Your task to perform on an android device: Open Google Maps Image 0: 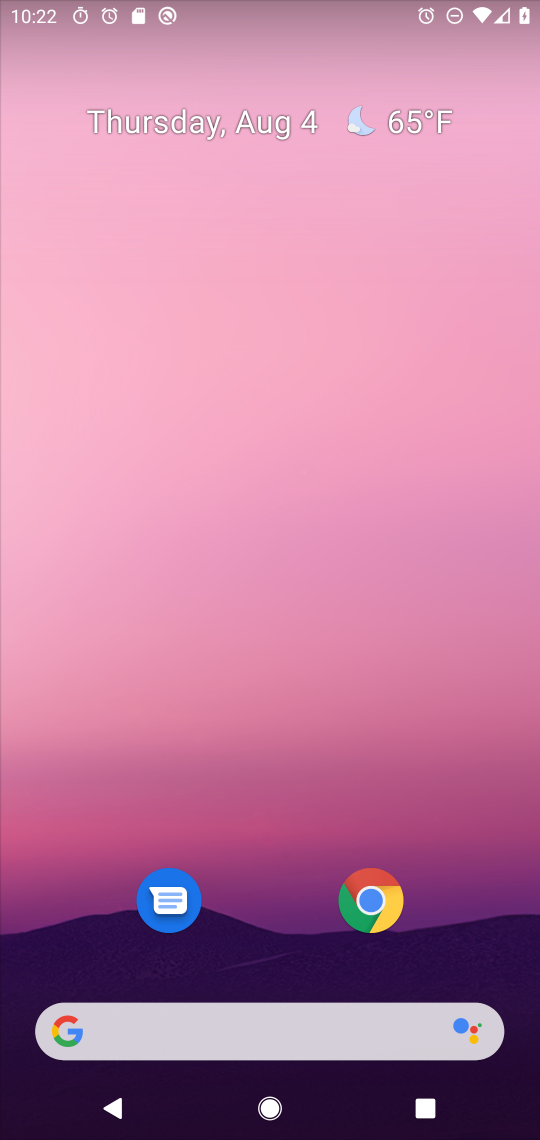
Step 0: drag from (243, 1034) to (362, 187)
Your task to perform on an android device: Open Google Maps Image 1: 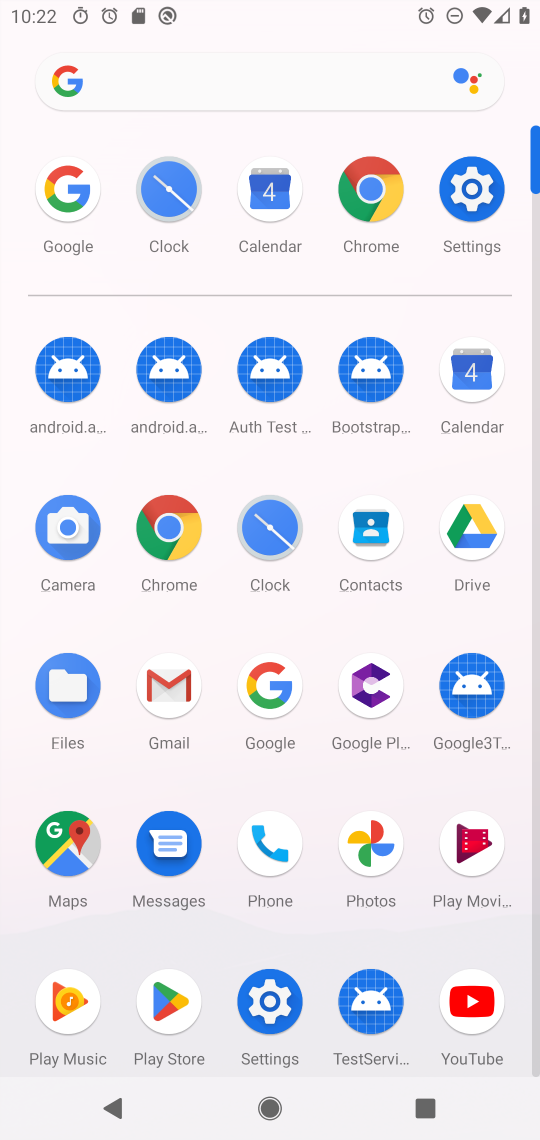
Step 1: click (70, 848)
Your task to perform on an android device: Open Google Maps Image 2: 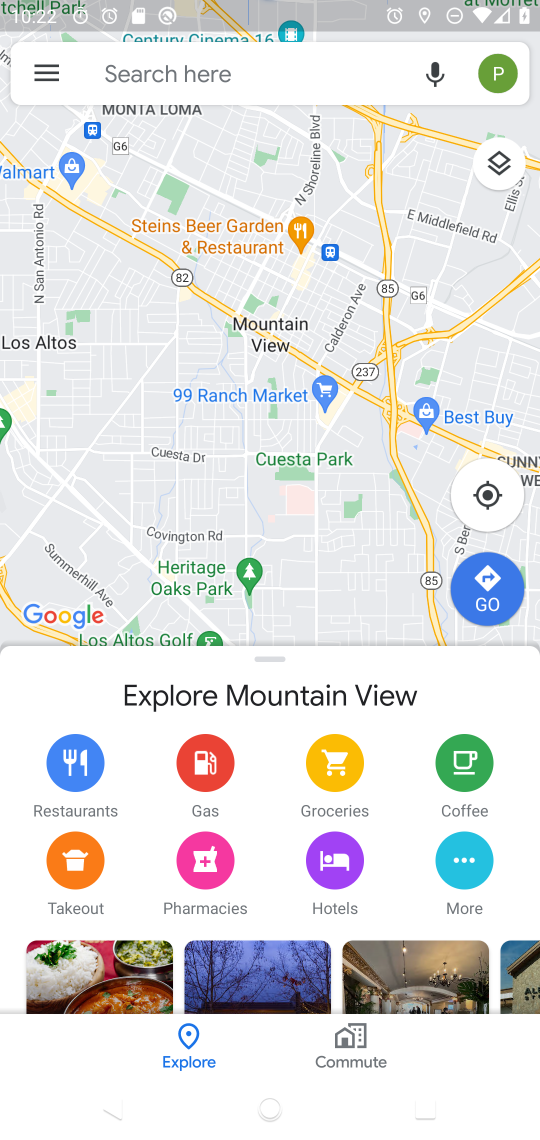
Step 2: task complete